Your task to perform on an android device: Empty the shopping cart on costco. Add logitech g910 to the cart on costco, then select checkout. Image 0: 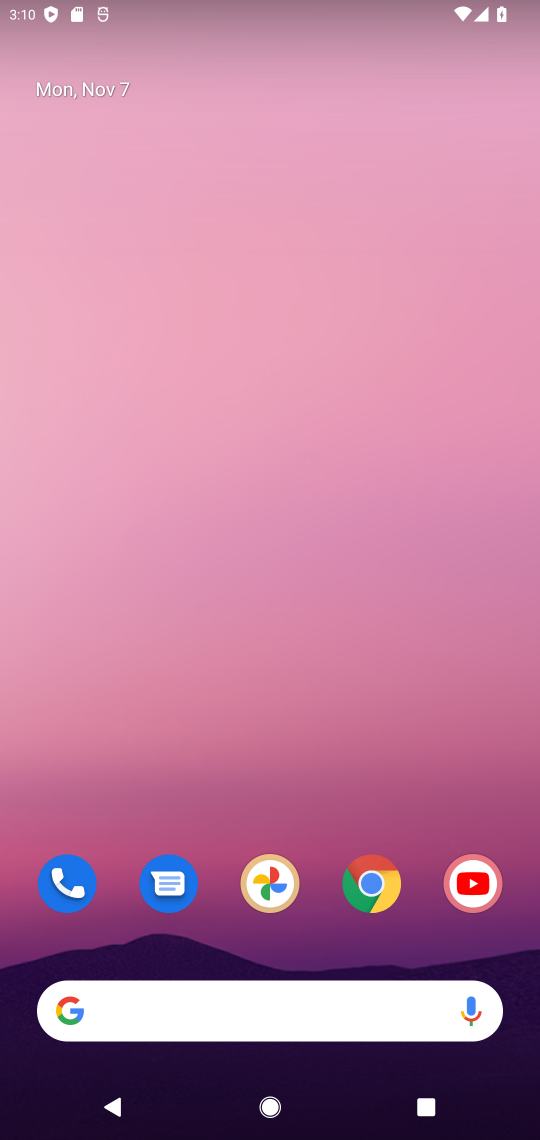
Step 0: click (377, 874)
Your task to perform on an android device: Empty the shopping cart on costco. Add logitech g910 to the cart on costco, then select checkout. Image 1: 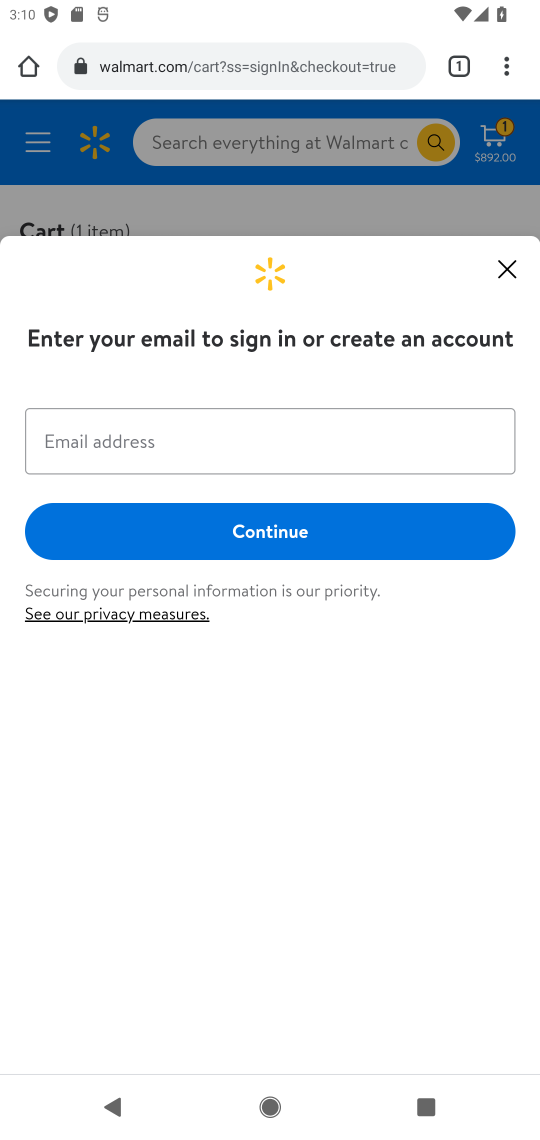
Step 1: click (336, 74)
Your task to perform on an android device: Empty the shopping cart on costco. Add logitech g910 to the cart on costco, then select checkout. Image 2: 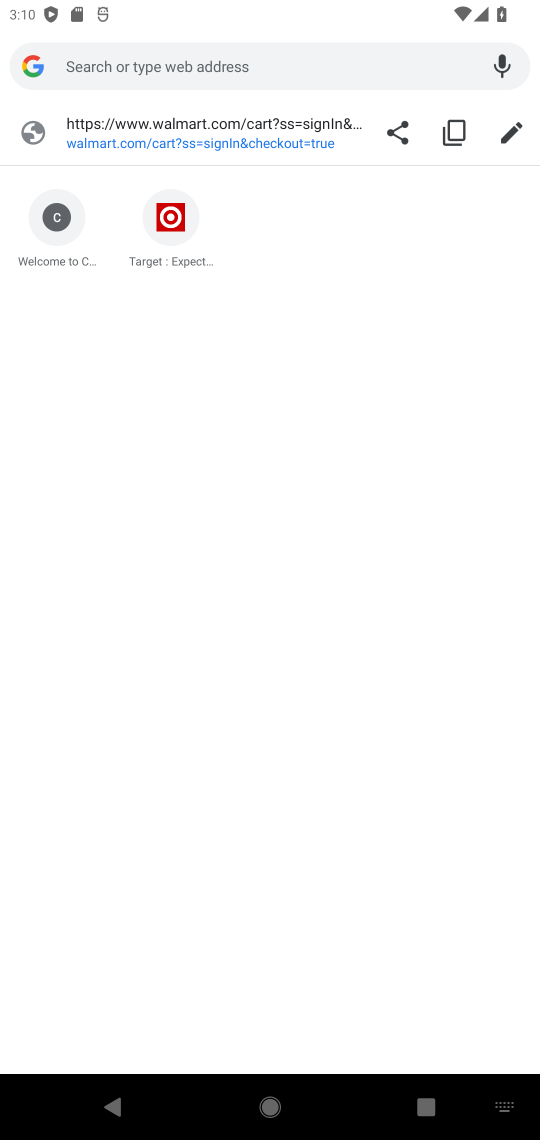
Step 2: type "costco"
Your task to perform on an android device: Empty the shopping cart on costco. Add logitech g910 to the cart on costco, then select checkout. Image 3: 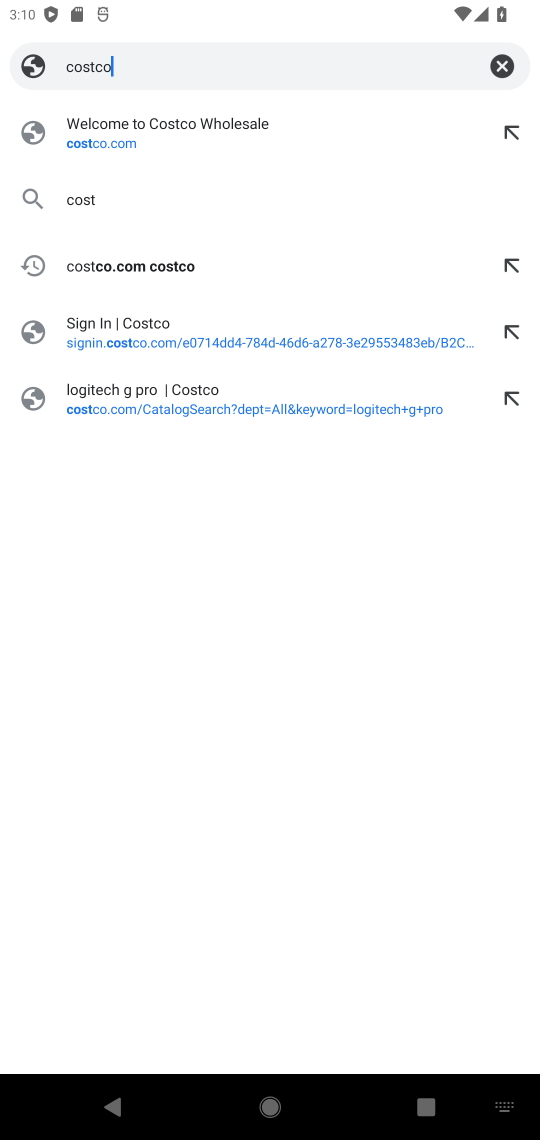
Step 3: press enter
Your task to perform on an android device: Empty the shopping cart on costco. Add logitech g910 to the cart on costco, then select checkout. Image 4: 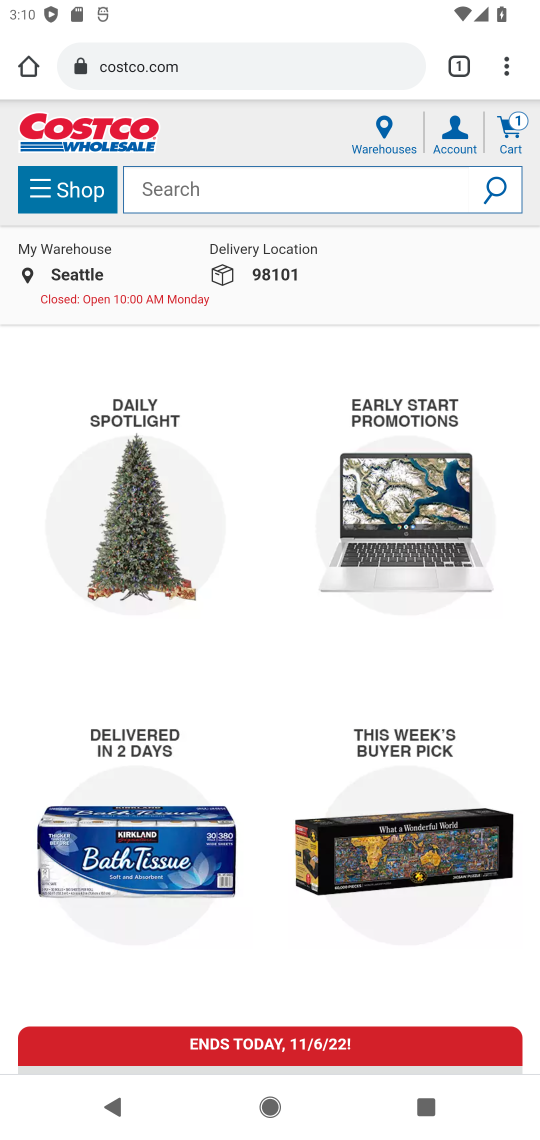
Step 4: click (233, 181)
Your task to perform on an android device: Empty the shopping cart on costco. Add logitech g910 to the cart on costco, then select checkout. Image 5: 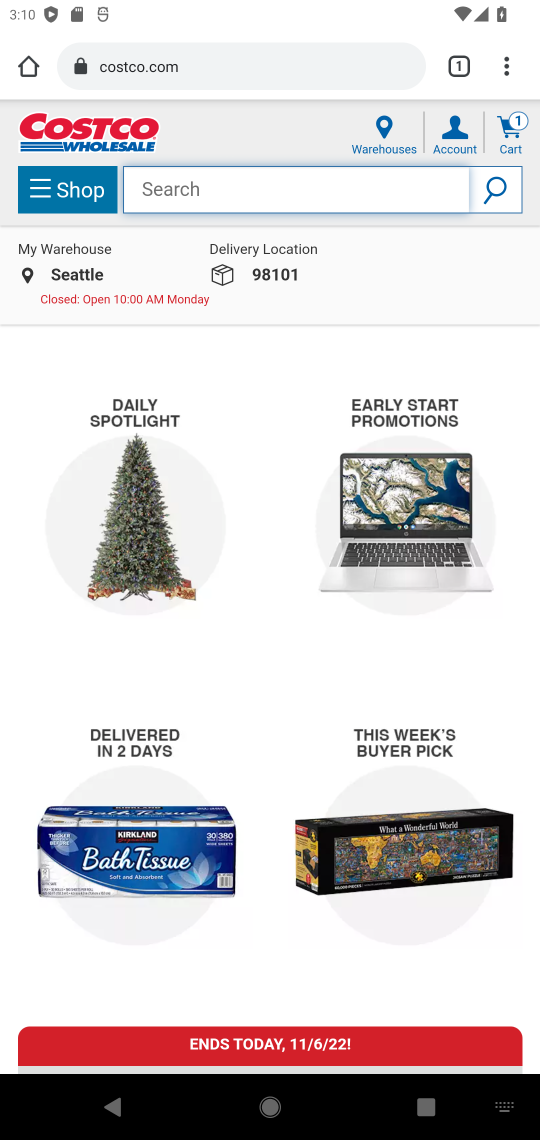
Step 5: type "logitech g910"
Your task to perform on an android device: Empty the shopping cart on costco. Add logitech g910 to the cart on costco, then select checkout. Image 6: 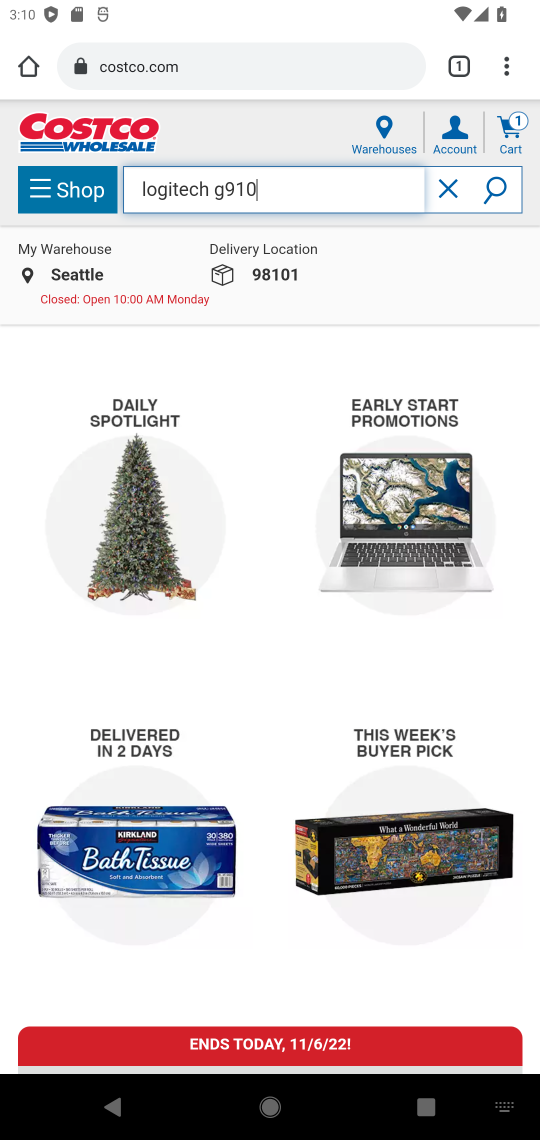
Step 6: press enter
Your task to perform on an android device: Empty the shopping cart on costco. Add logitech g910 to the cart on costco, then select checkout. Image 7: 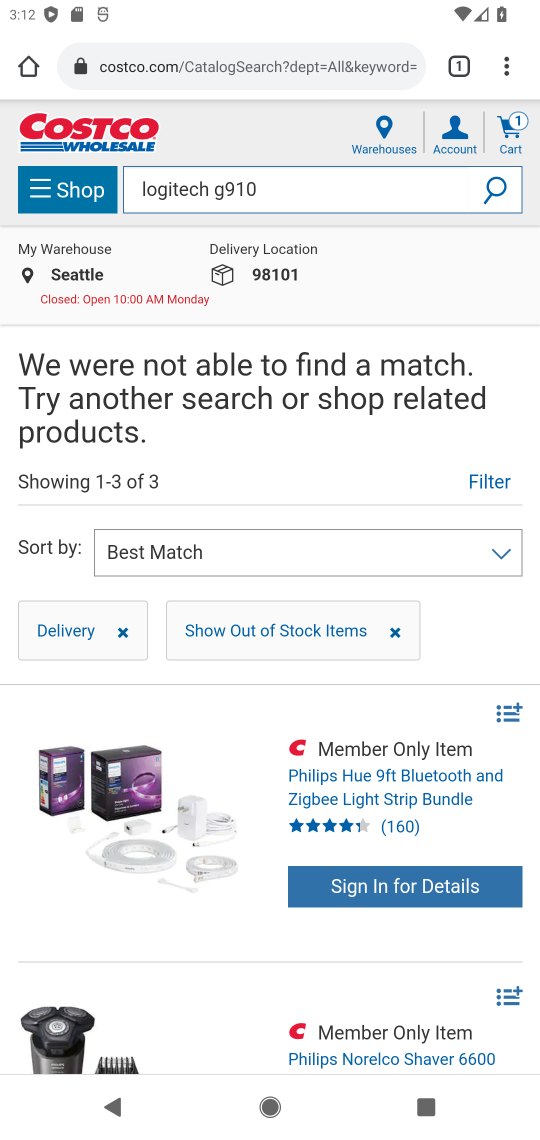
Step 7: task complete